Your task to perform on an android device: turn off picture-in-picture Image 0: 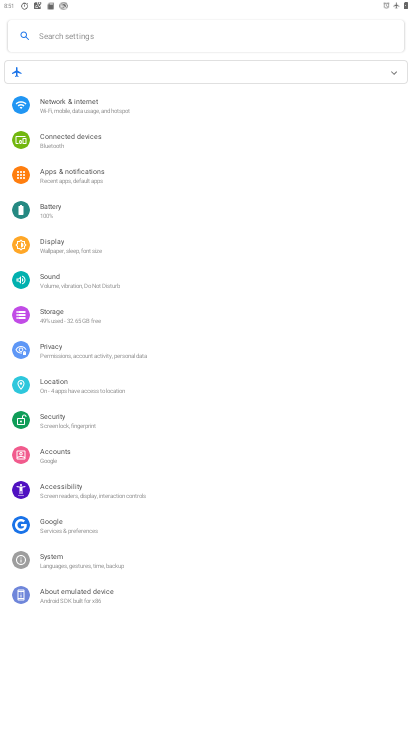
Step 0: click (70, 168)
Your task to perform on an android device: turn off picture-in-picture Image 1: 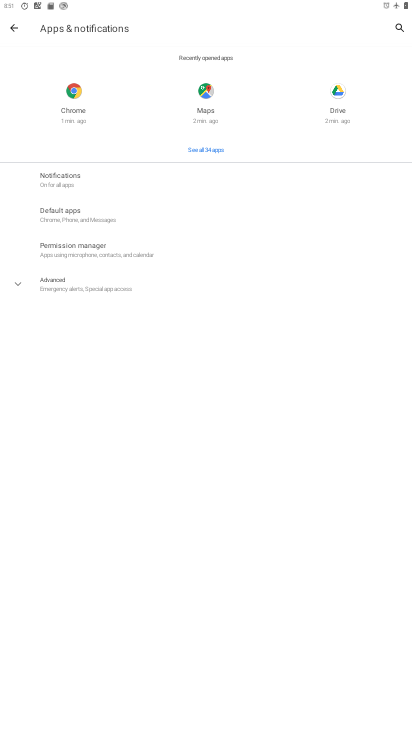
Step 1: click (59, 287)
Your task to perform on an android device: turn off picture-in-picture Image 2: 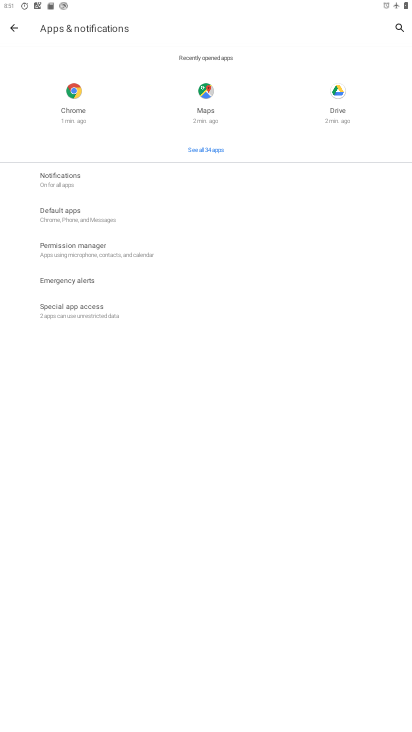
Step 2: click (60, 308)
Your task to perform on an android device: turn off picture-in-picture Image 3: 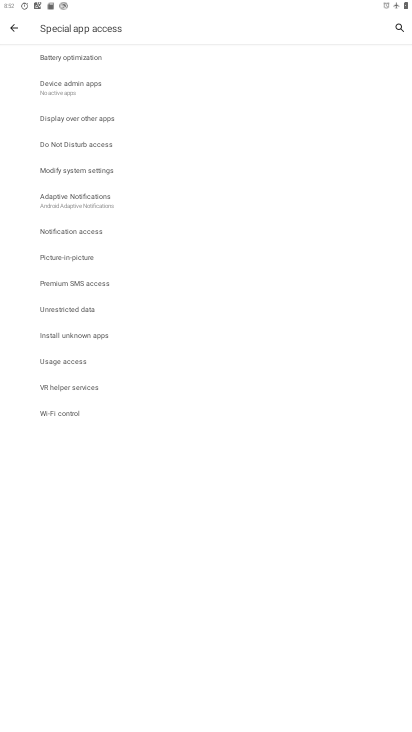
Step 3: click (69, 260)
Your task to perform on an android device: turn off picture-in-picture Image 4: 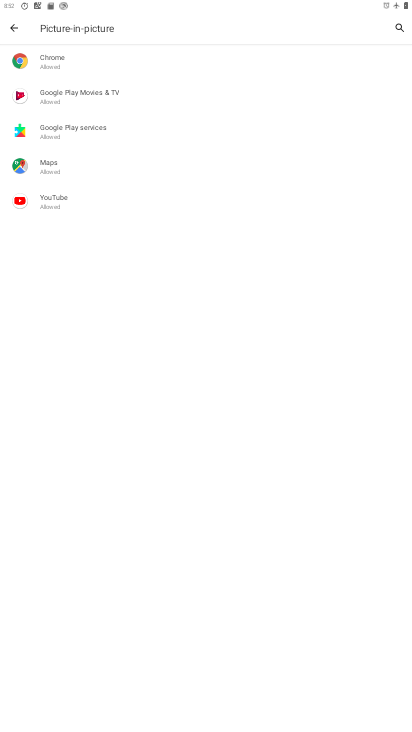
Step 4: click (58, 71)
Your task to perform on an android device: turn off picture-in-picture Image 5: 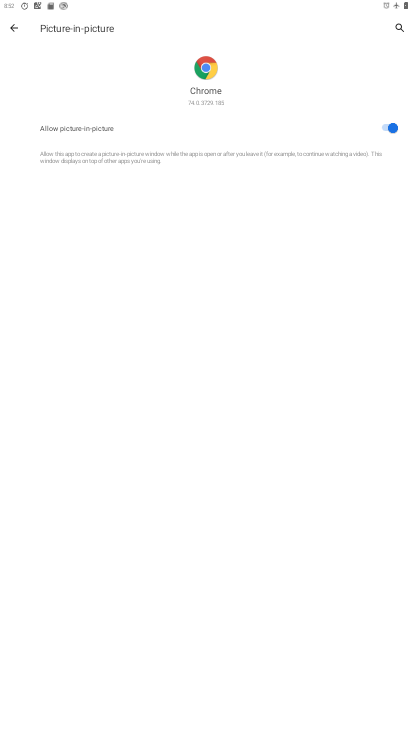
Step 5: click (381, 125)
Your task to perform on an android device: turn off picture-in-picture Image 6: 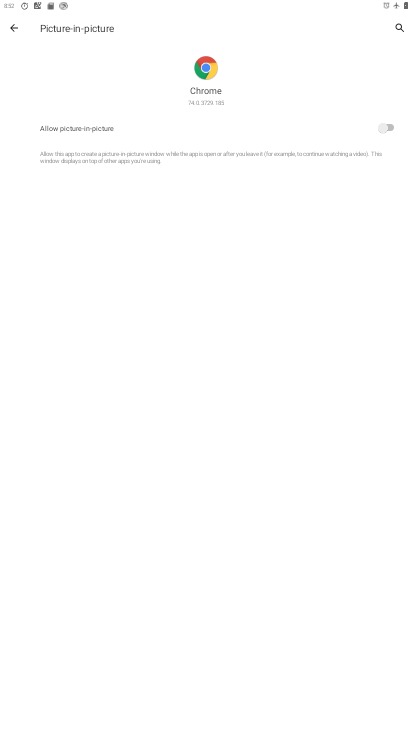
Step 6: task complete